Your task to perform on an android device: toggle show notifications on the lock screen Image 0: 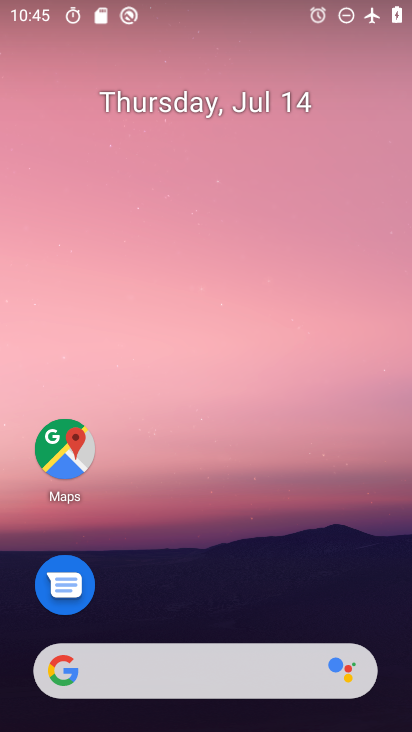
Step 0: drag from (203, 637) to (36, 110)
Your task to perform on an android device: toggle show notifications on the lock screen Image 1: 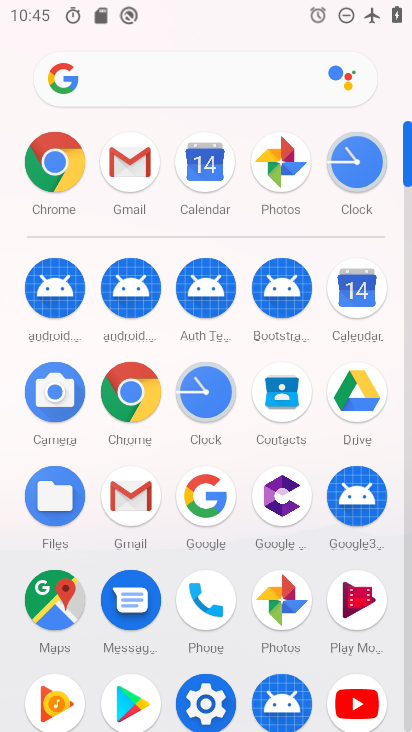
Step 1: click (193, 693)
Your task to perform on an android device: toggle show notifications on the lock screen Image 2: 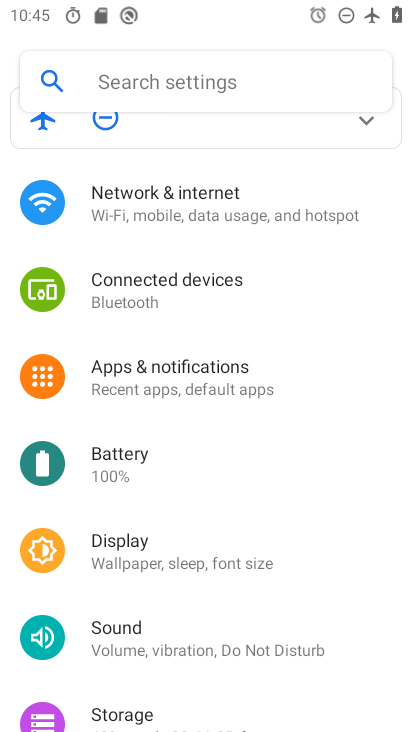
Step 2: click (156, 387)
Your task to perform on an android device: toggle show notifications on the lock screen Image 3: 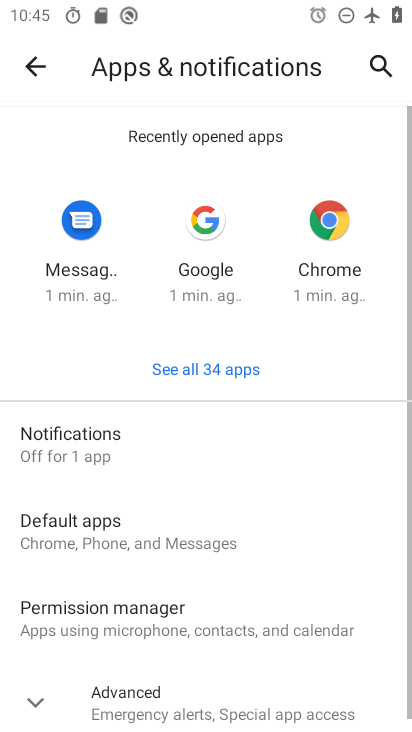
Step 3: click (100, 451)
Your task to perform on an android device: toggle show notifications on the lock screen Image 4: 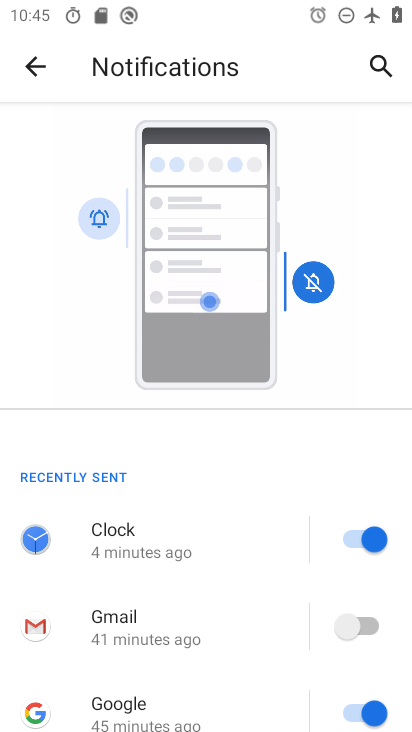
Step 4: drag from (253, 619) to (217, 19)
Your task to perform on an android device: toggle show notifications on the lock screen Image 5: 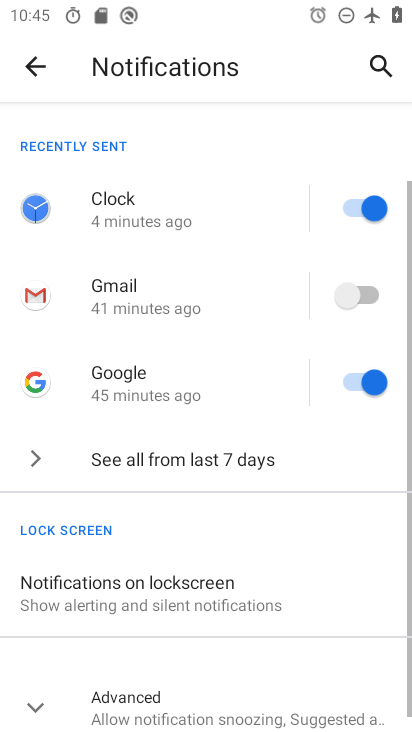
Step 5: click (201, 585)
Your task to perform on an android device: toggle show notifications on the lock screen Image 6: 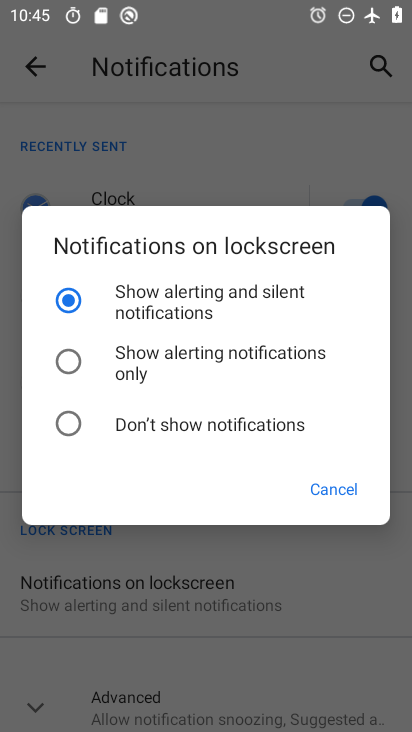
Step 6: click (138, 343)
Your task to perform on an android device: toggle show notifications on the lock screen Image 7: 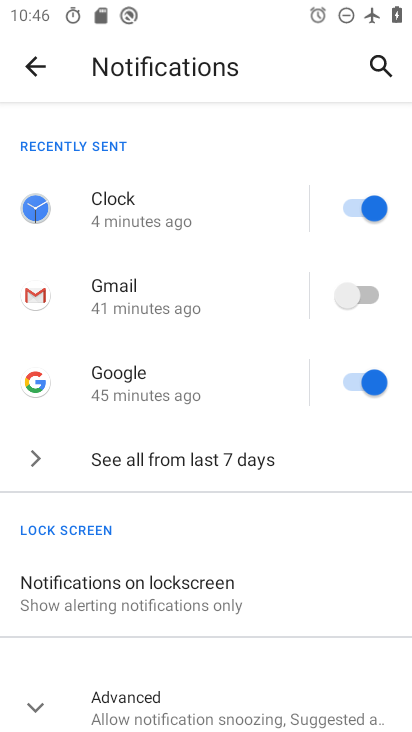
Step 7: task complete